Your task to perform on an android device: empty trash in the gmail app Image 0: 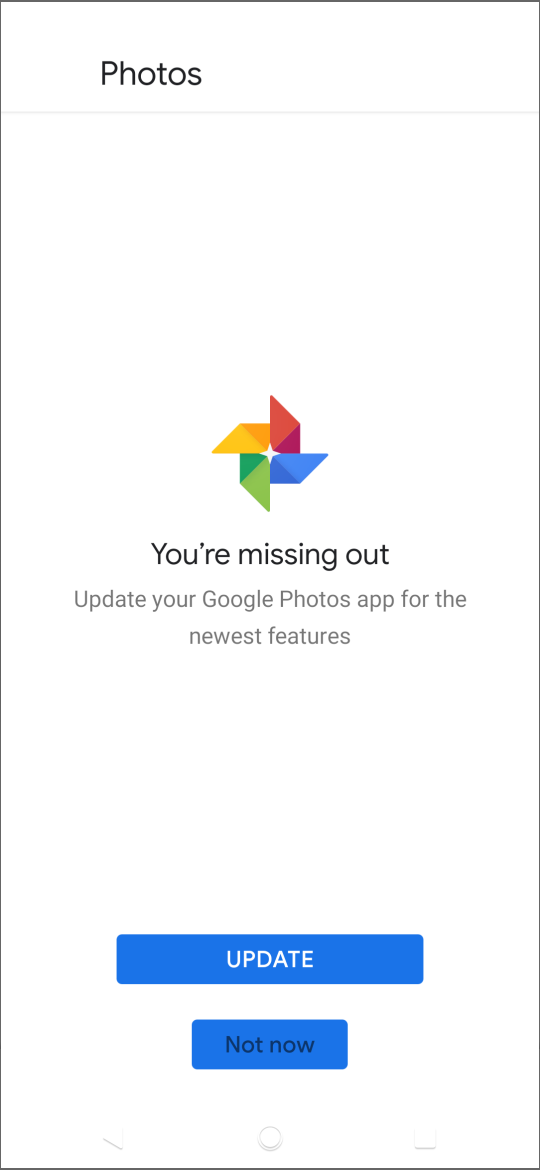
Step 0: press home button
Your task to perform on an android device: empty trash in the gmail app Image 1: 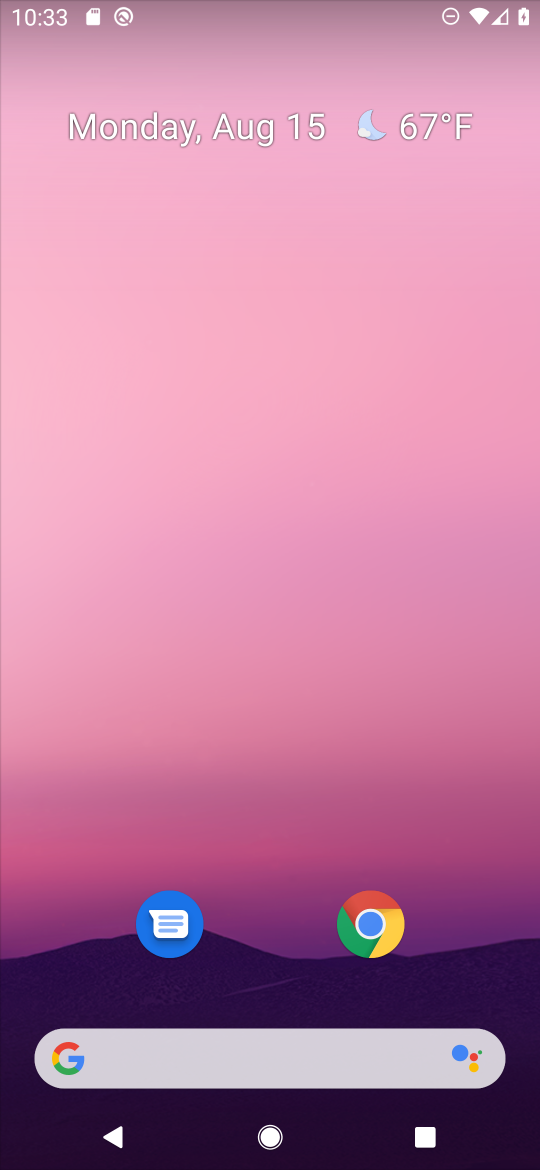
Step 1: drag from (477, 859) to (435, 151)
Your task to perform on an android device: empty trash in the gmail app Image 2: 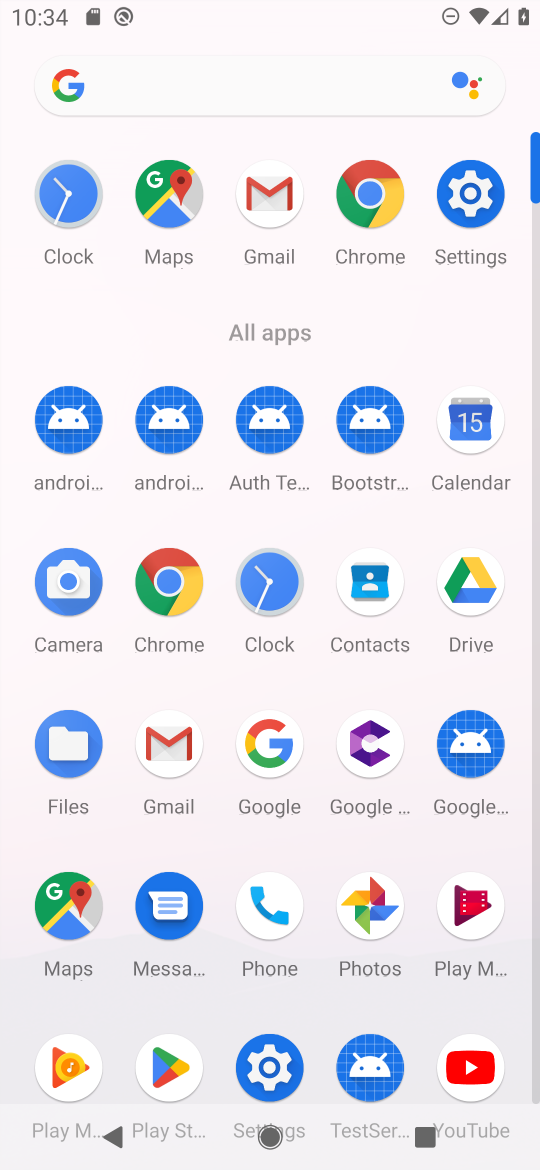
Step 2: click (169, 743)
Your task to perform on an android device: empty trash in the gmail app Image 3: 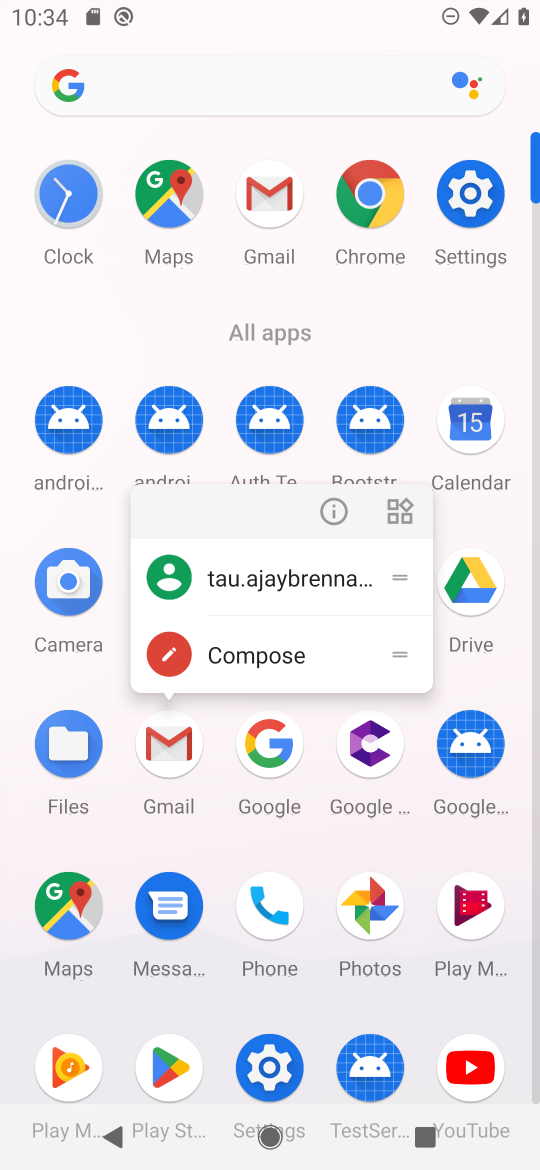
Step 3: click (167, 748)
Your task to perform on an android device: empty trash in the gmail app Image 4: 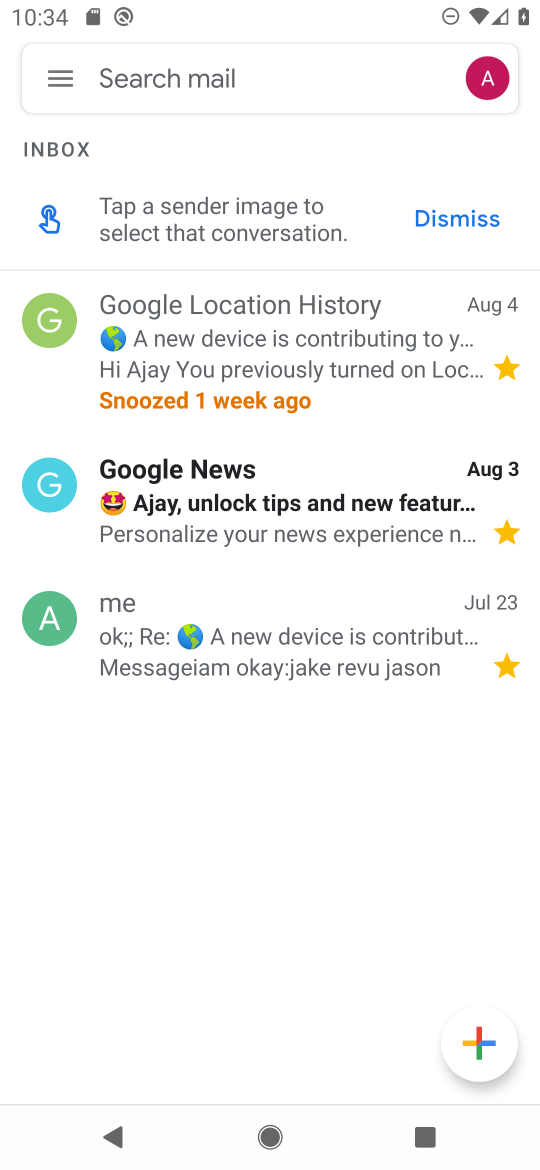
Step 4: click (59, 78)
Your task to perform on an android device: empty trash in the gmail app Image 5: 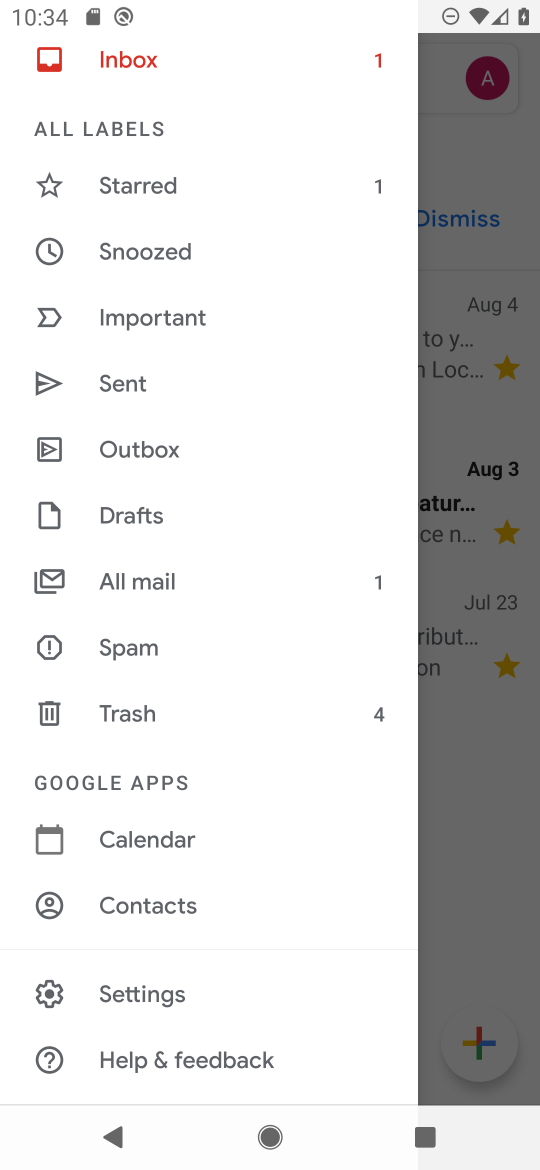
Step 5: click (124, 715)
Your task to perform on an android device: empty trash in the gmail app Image 6: 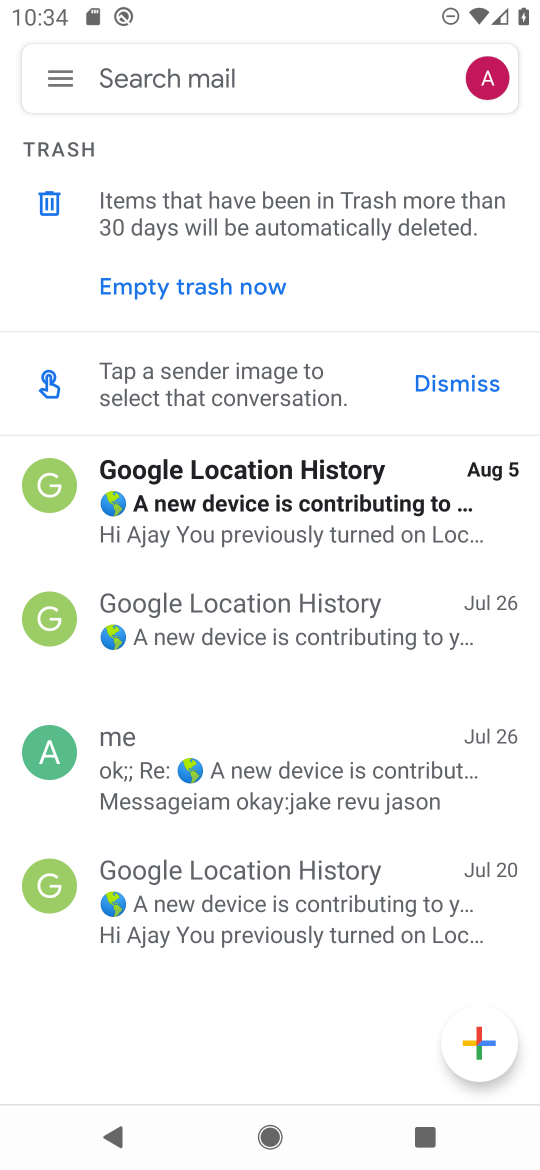
Step 6: click (182, 285)
Your task to perform on an android device: empty trash in the gmail app Image 7: 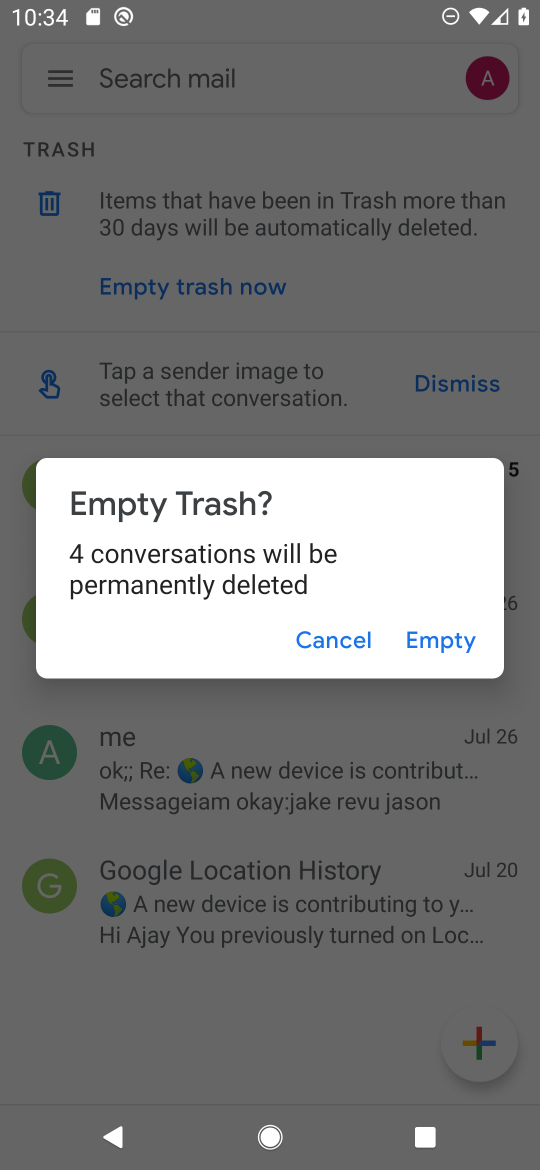
Step 7: click (438, 636)
Your task to perform on an android device: empty trash in the gmail app Image 8: 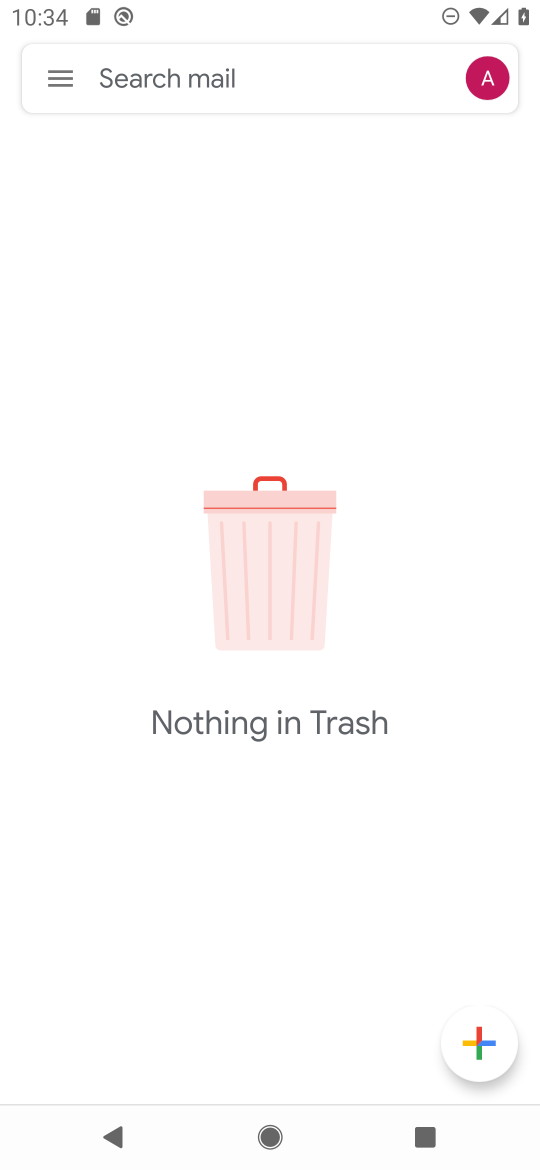
Step 8: task complete